Your task to perform on an android device: What is the recent news? Image 0: 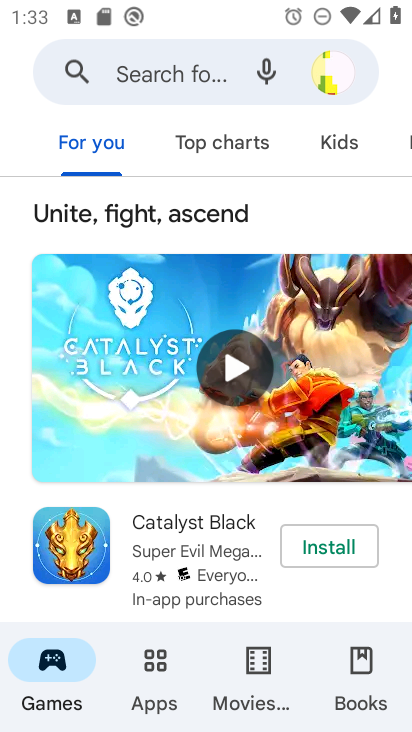
Step 0: press home button
Your task to perform on an android device: What is the recent news? Image 1: 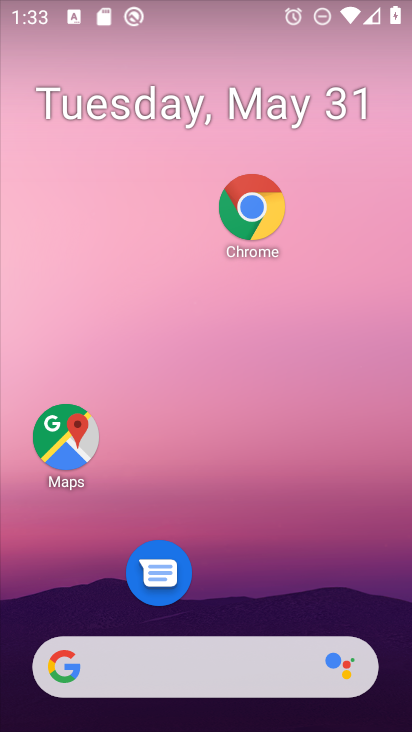
Step 1: drag from (256, 347) to (270, 164)
Your task to perform on an android device: What is the recent news? Image 2: 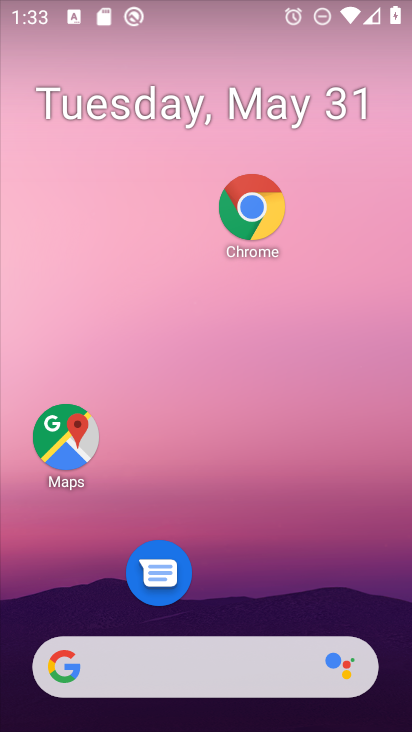
Step 2: drag from (288, 500) to (309, 77)
Your task to perform on an android device: What is the recent news? Image 3: 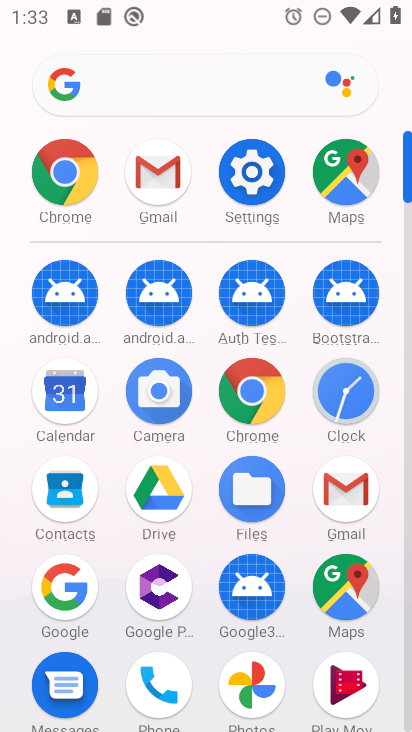
Step 3: click (75, 603)
Your task to perform on an android device: What is the recent news? Image 4: 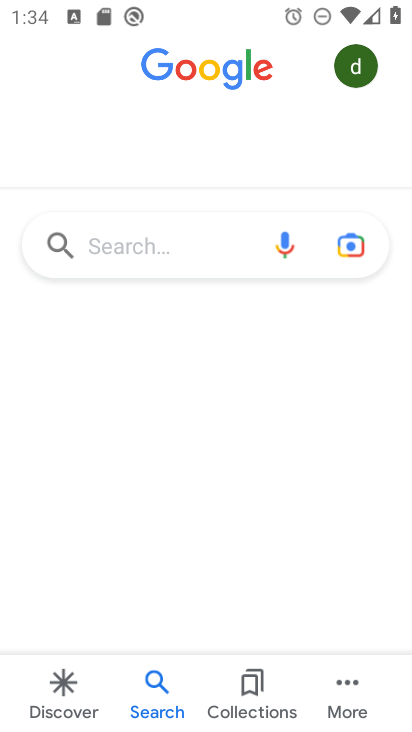
Step 4: click (146, 238)
Your task to perform on an android device: What is the recent news? Image 5: 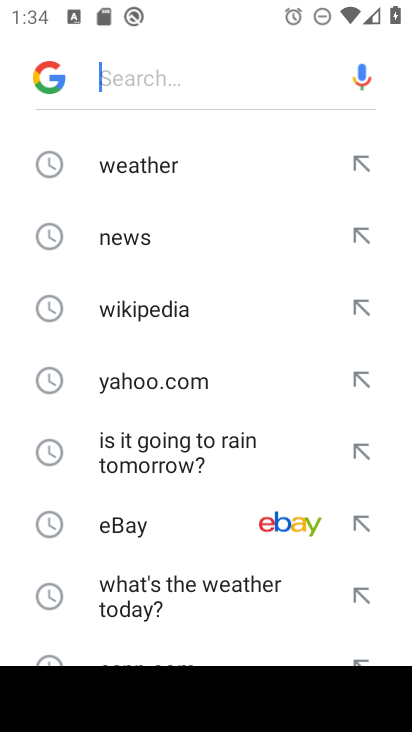
Step 5: click (147, 243)
Your task to perform on an android device: What is the recent news? Image 6: 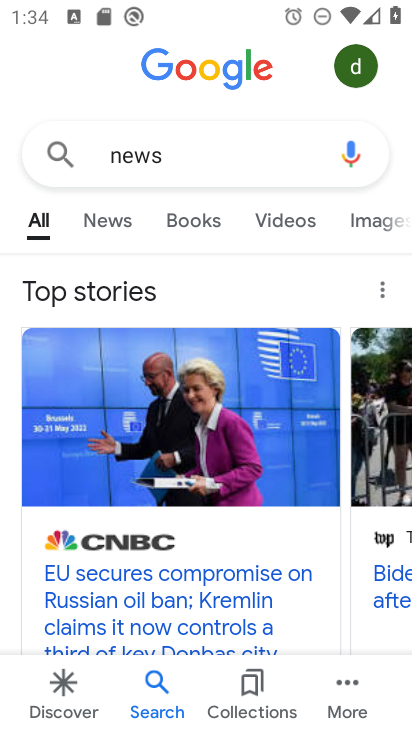
Step 6: click (108, 235)
Your task to perform on an android device: What is the recent news? Image 7: 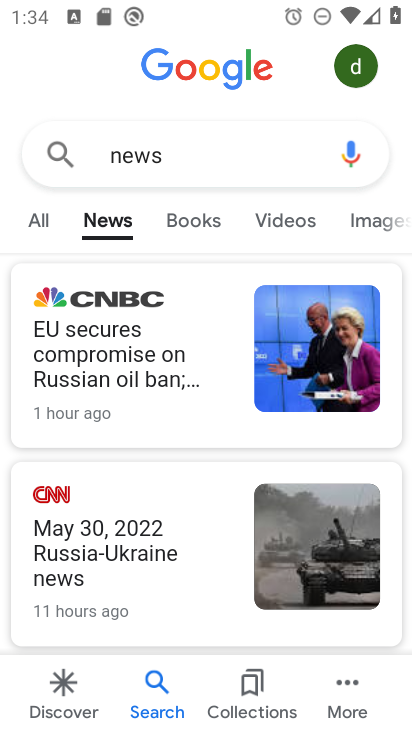
Step 7: task complete